Your task to perform on an android device: delete a single message in the gmail app Image 0: 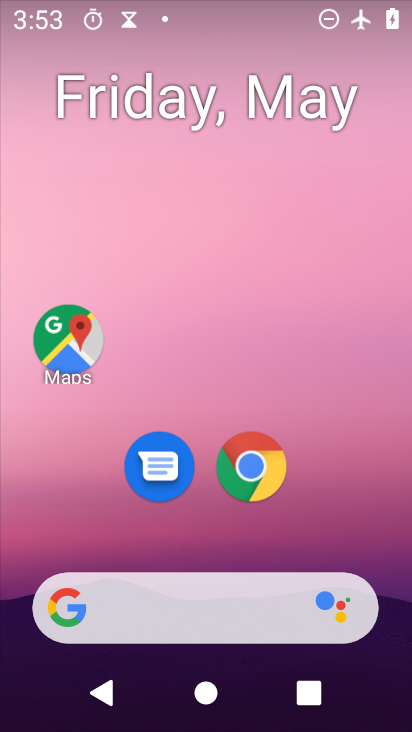
Step 0: drag from (340, 488) to (381, 0)
Your task to perform on an android device: delete a single message in the gmail app Image 1: 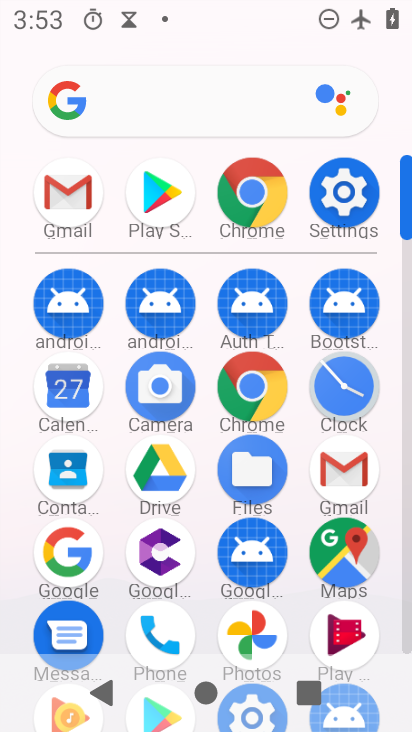
Step 1: click (353, 461)
Your task to perform on an android device: delete a single message in the gmail app Image 2: 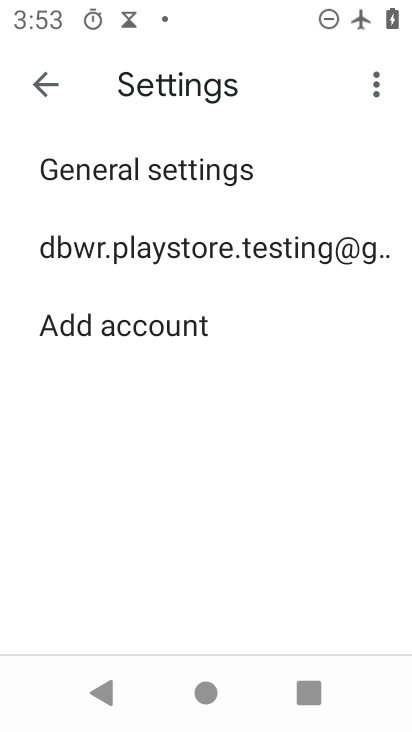
Step 2: click (48, 99)
Your task to perform on an android device: delete a single message in the gmail app Image 3: 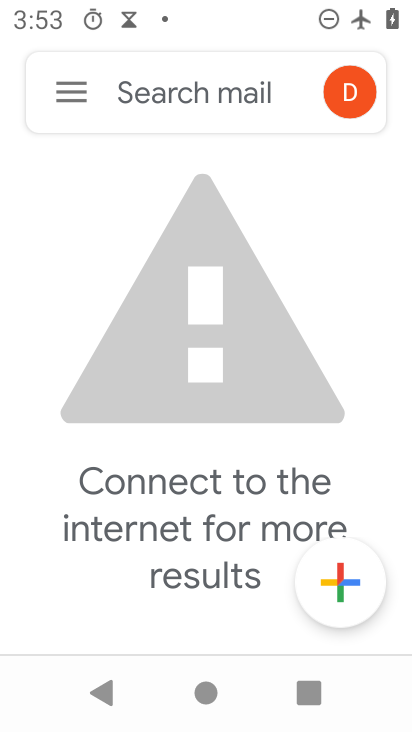
Step 3: task complete